Your task to perform on an android device: delete browsing data in the chrome app Image 0: 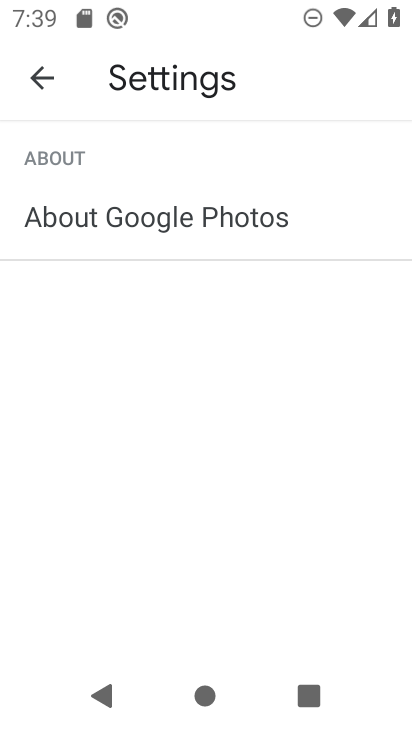
Step 0: drag from (403, 622) to (409, 520)
Your task to perform on an android device: delete browsing data in the chrome app Image 1: 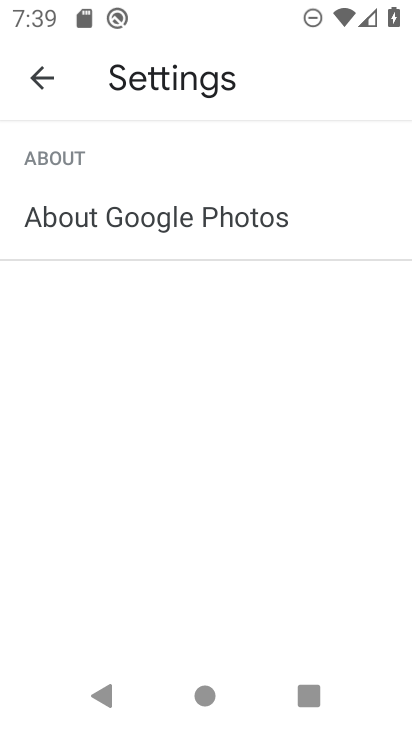
Step 1: press home button
Your task to perform on an android device: delete browsing data in the chrome app Image 2: 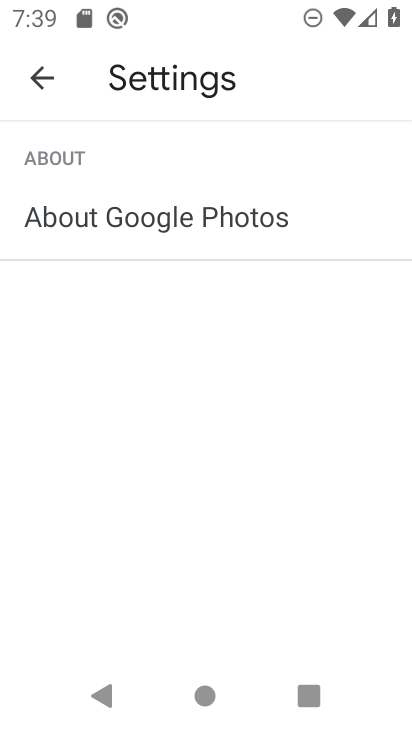
Step 2: drag from (409, 520) to (408, 406)
Your task to perform on an android device: delete browsing data in the chrome app Image 3: 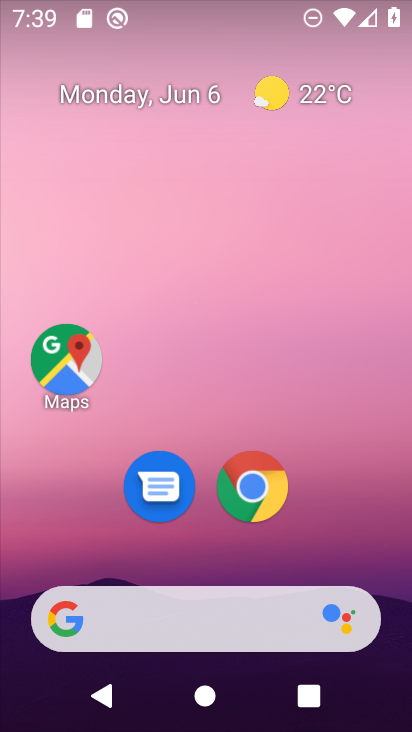
Step 3: drag from (391, 626) to (336, 69)
Your task to perform on an android device: delete browsing data in the chrome app Image 4: 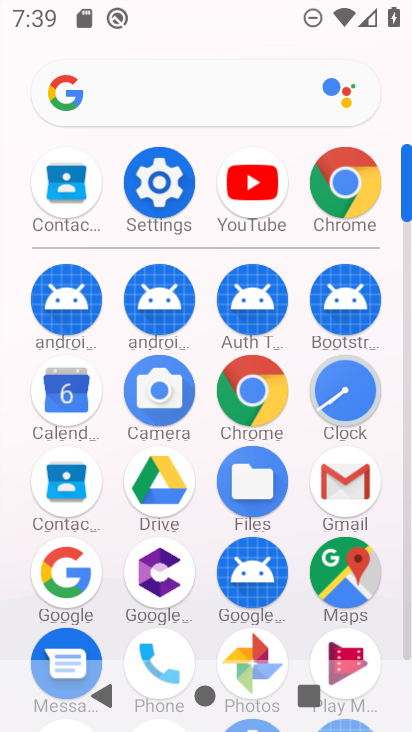
Step 4: click (253, 363)
Your task to perform on an android device: delete browsing data in the chrome app Image 5: 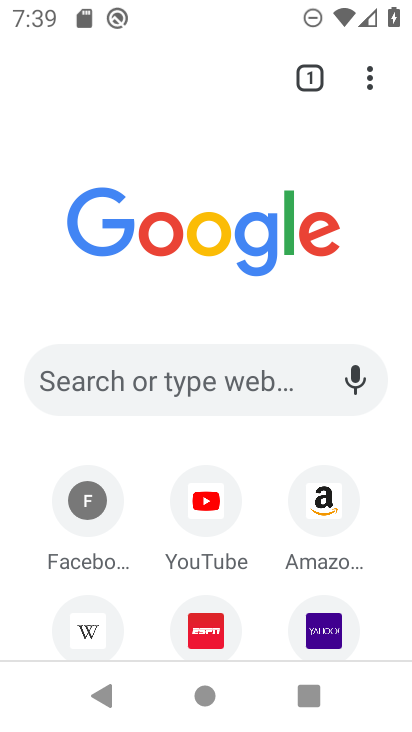
Step 5: click (370, 83)
Your task to perform on an android device: delete browsing data in the chrome app Image 6: 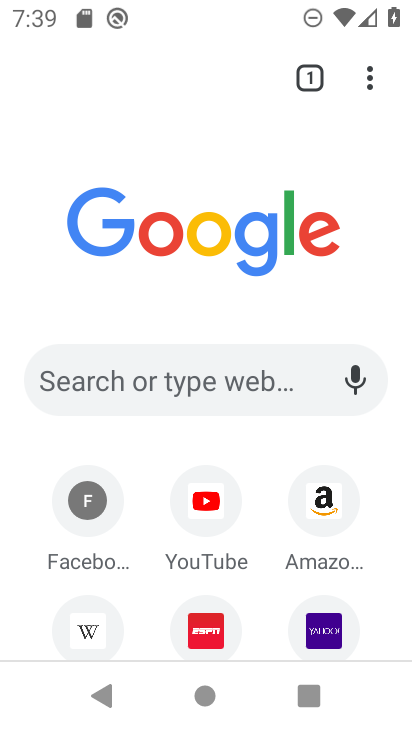
Step 6: click (370, 66)
Your task to perform on an android device: delete browsing data in the chrome app Image 7: 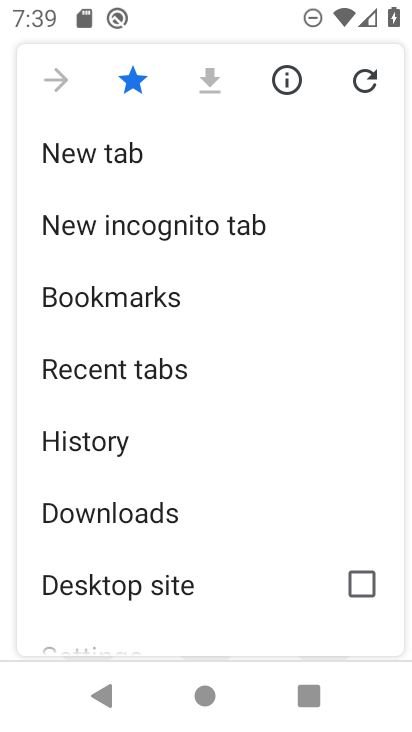
Step 7: click (159, 446)
Your task to perform on an android device: delete browsing data in the chrome app Image 8: 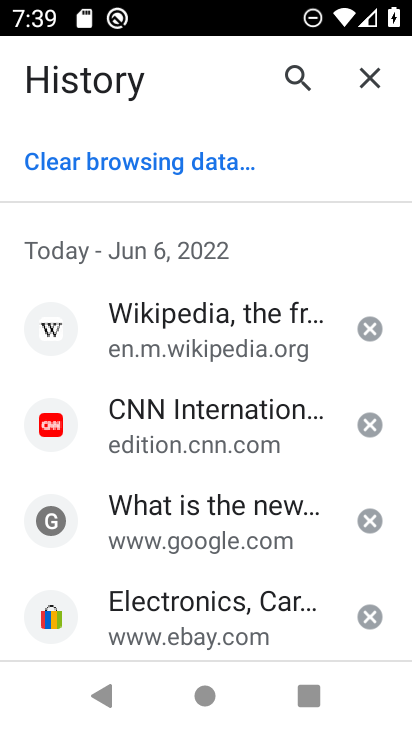
Step 8: click (175, 171)
Your task to perform on an android device: delete browsing data in the chrome app Image 9: 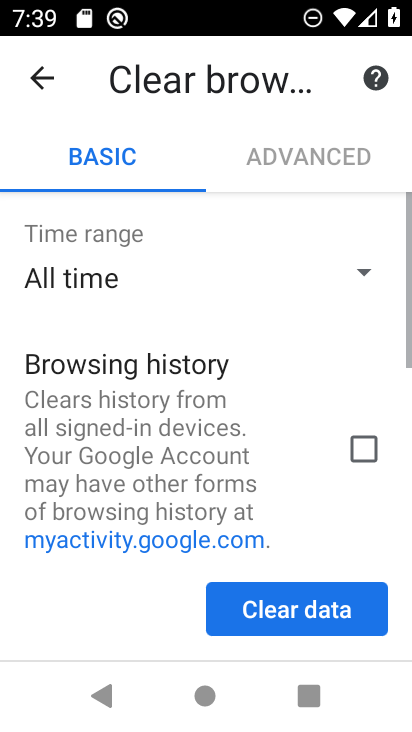
Step 9: click (364, 456)
Your task to perform on an android device: delete browsing data in the chrome app Image 10: 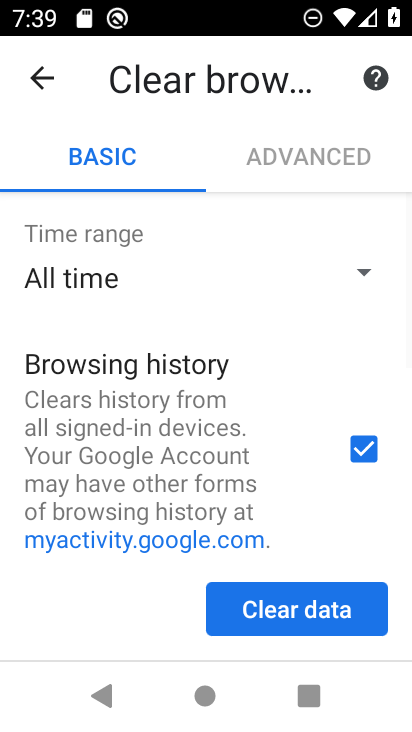
Step 10: click (266, 617)
Your task to perform on an android device: delete browsing data in the chrome app Image 11: 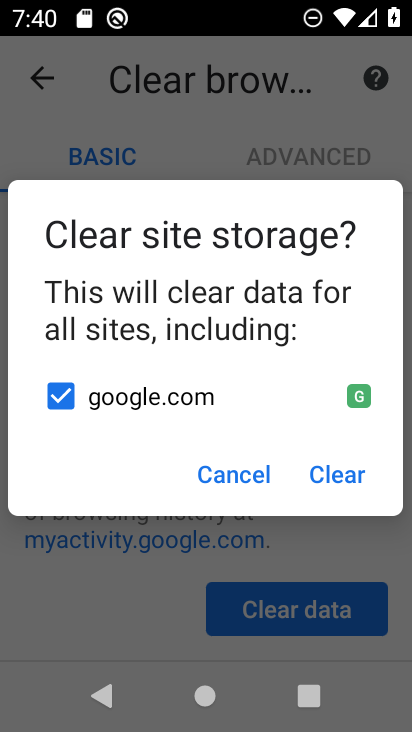
Step 11: click (342, 483)
Your task to perform on an android device: delete browsing data in the chrome app Image 12: 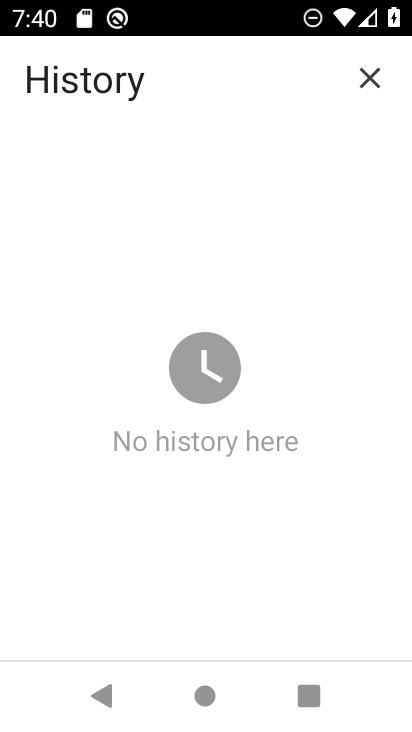
Step 12: task complete